Your task to perform on an android device: turn pop-ups off in chrome Image 0: 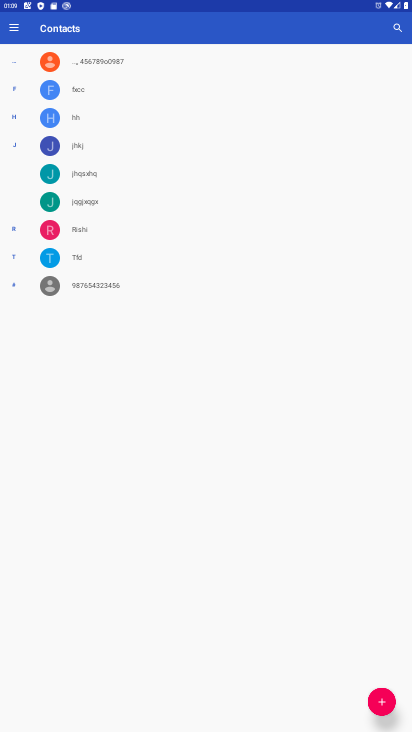
Step 0: press home button
Your task to perform on an android device: turn pop-ups off in chrome Image 1: 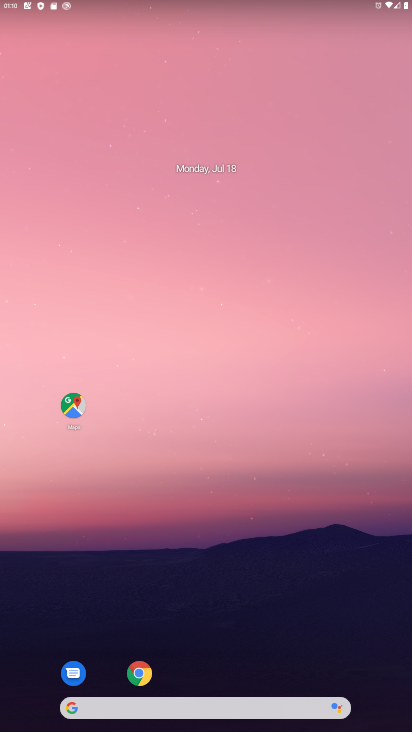
Step 1: click (130, 688)
Your task to perform on an android device: turn pop-ups off in chrome Image 2: 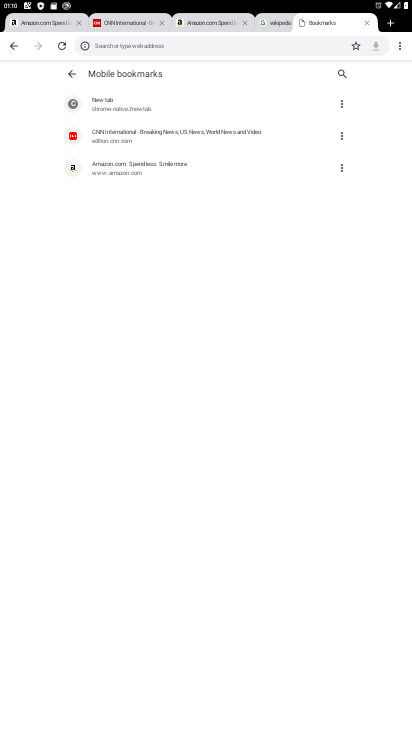
Step 2: click (399, 44)
Your task to perform on an android device: turn pop-ups off in chrome Image 3: 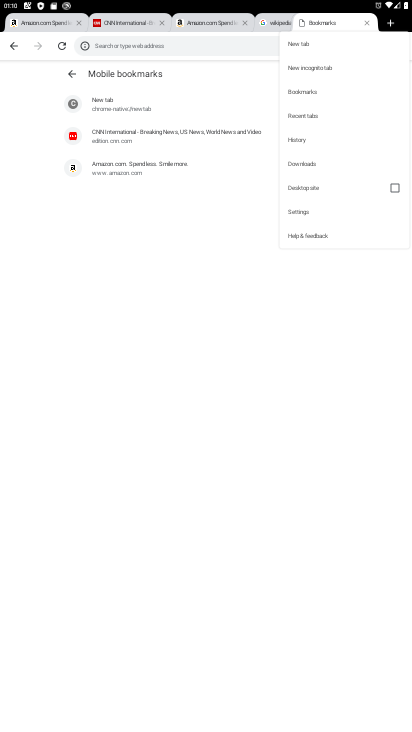
Step 3: click (311, 207)
Your task to perform on an android device: turn pop-ups off in chrome Image 4: 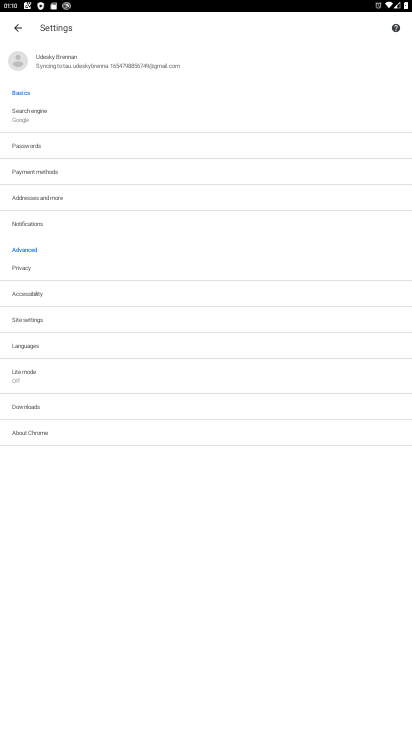
Step 4: click (83, 311)
Your task to perform on an android device: turn pop-ups off in chrome Image 5: 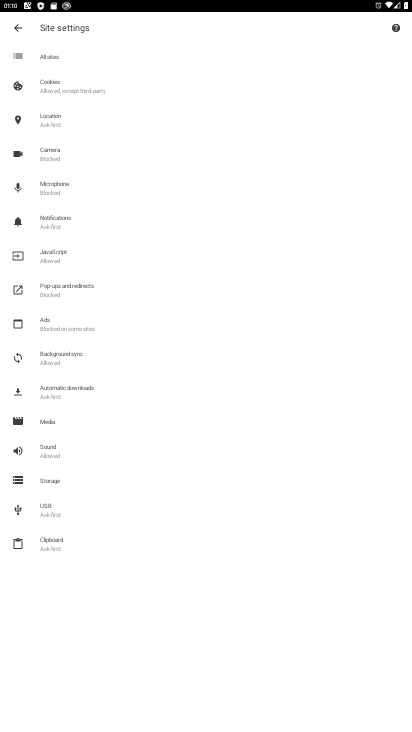
Step 5: click (85, 391)
Your task to perform on an android device: turn pop-ups off in chrome Image 6: 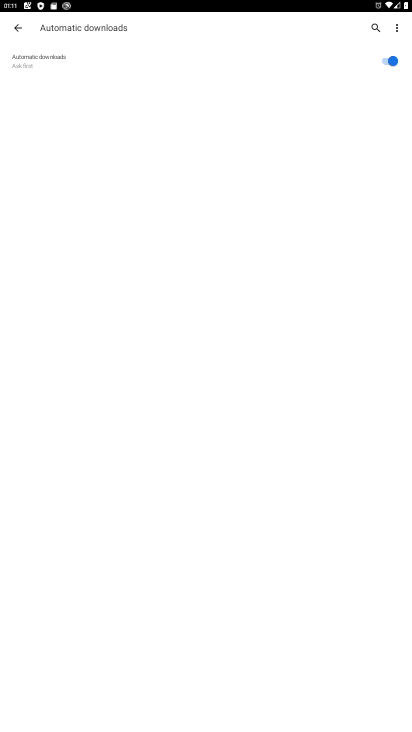
Step 6: task complete